Your task to perform on an android device: turn on javascript in the chrome app Image 0: 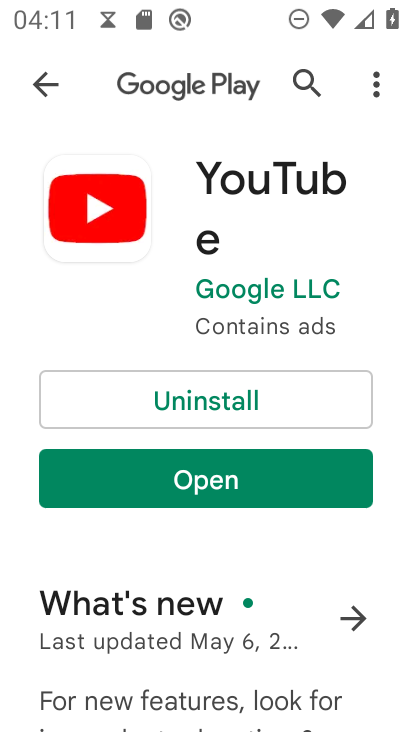
Step 0: press home button
Your task to perform on an android device: turn on javascript in the chrome app Image 1: 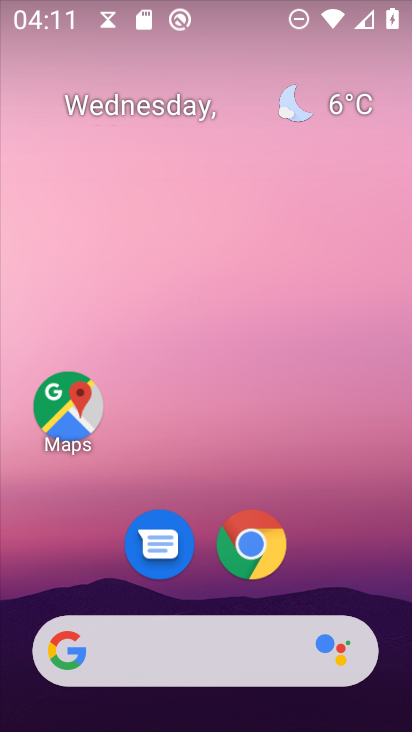
Step 1: click (253, 540)
Your task to perform on an android device: turn on javascript in the chrome app Image 2: 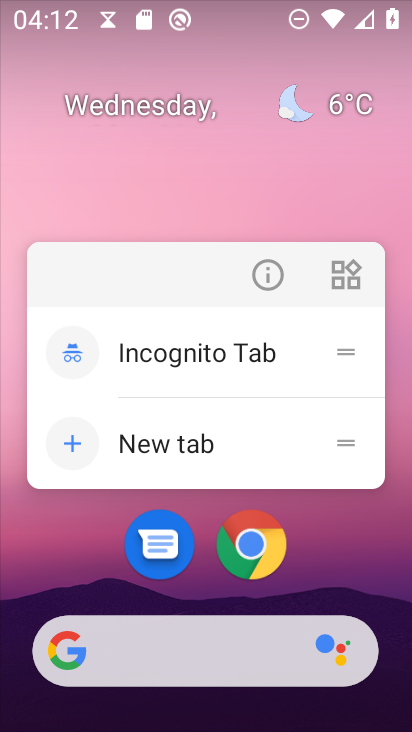
Step 2: click (257, 537)
Your task to perform on an android device: turn on javascript in the chrome app Image 3: 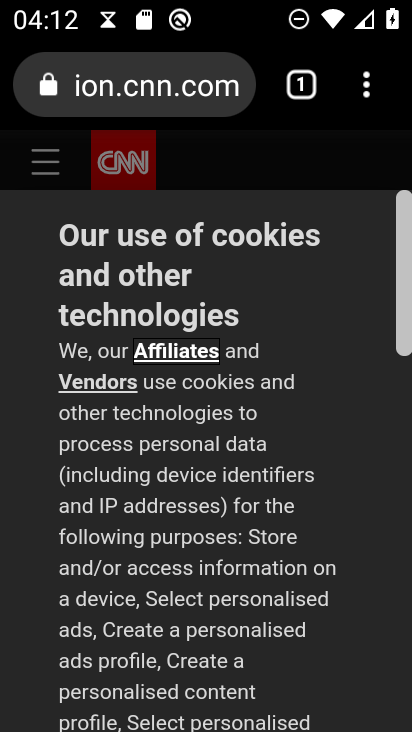
Step 3: click (372, 83)
Your task to perform on an android device: turn on javascript in the chrome app Image 4: 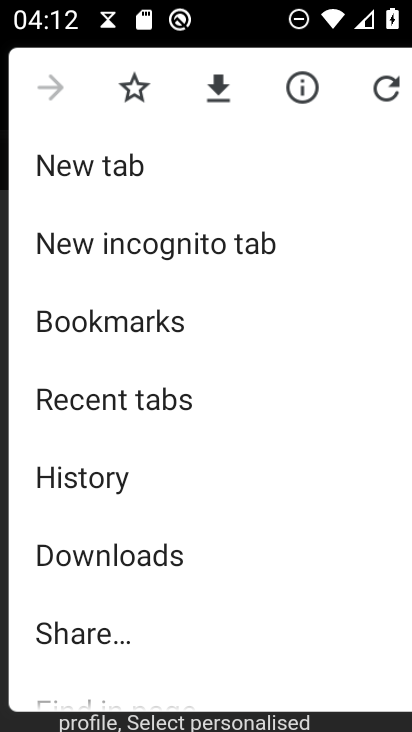
Step 4: drag from (192, 642) to (231, 202)
Your task to perform on an android device: turn on javascript in the chrome app Image 5: 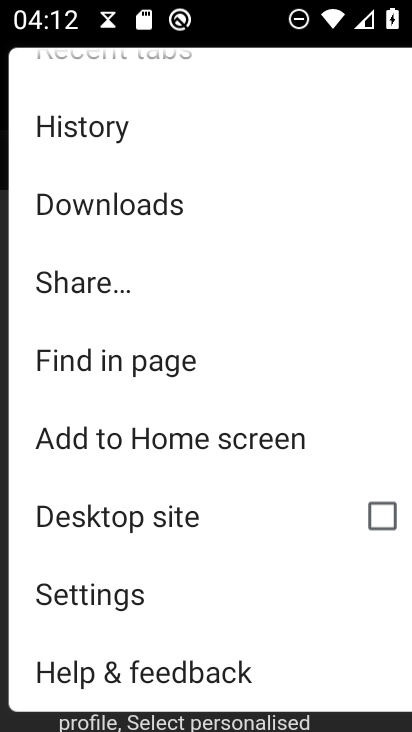
Step 5: click (135, 593)
Your task to perform on an android device: turn on javascript in the chrome app Image 6: 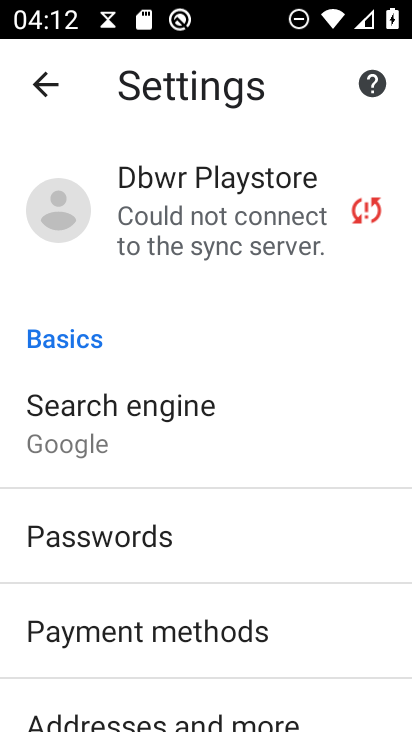
Step 6: drag from (196, 621) to (264, 213)
Your task to perform on an android device: turn on javascript in the chrome app Image 7: 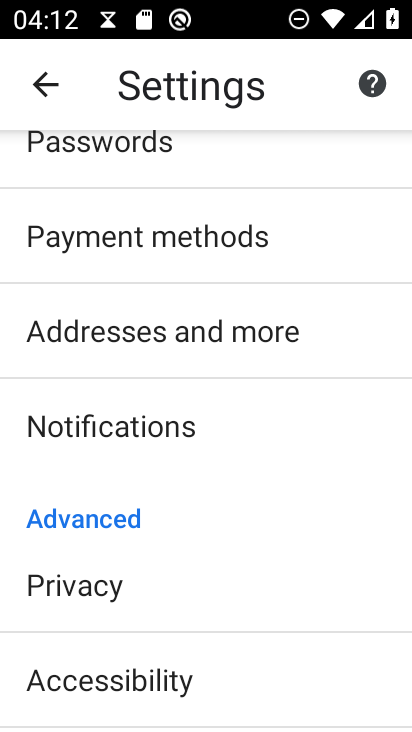
Step 7: drag from (199, 686) to (264, 360)
Your task to perform on an android device: turn on javascript in the chrome app Image 8: 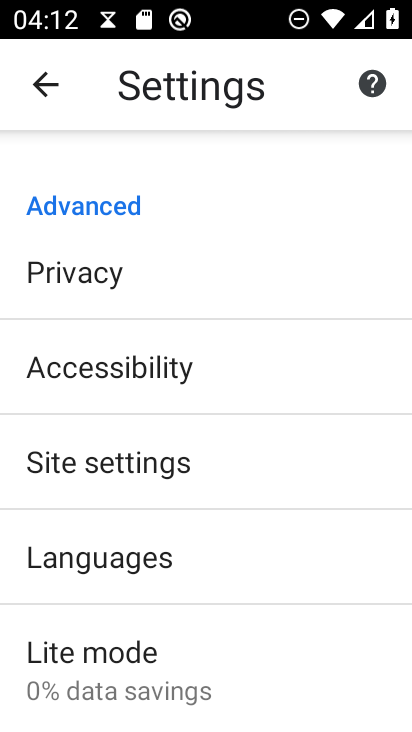
Step 8: drag from (176, 634) to (168, 286)
Your task to perform on an android device: turn on javascript in the chrome app Image 9: 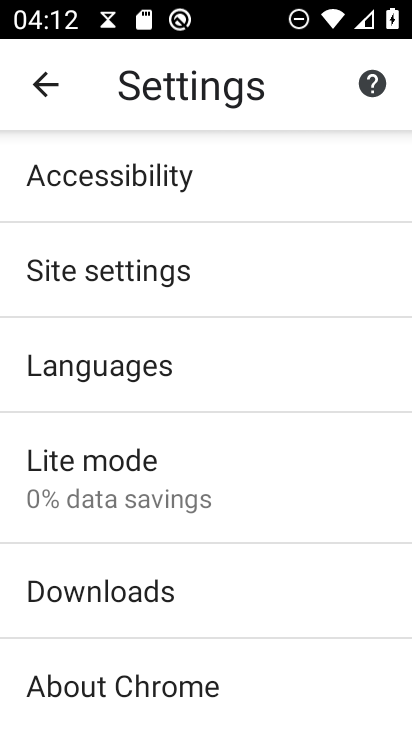
Step 9: drag from (178, 663) to (182, 401)
Your task to perform on an android device: turn on javascript in the chrome app Image 10: 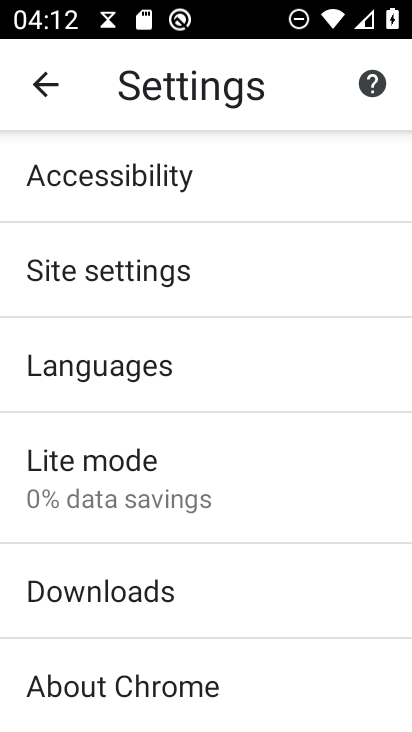
Step 10: click (123, 291)
Your task to perform on an android device: turn on javascript in the chrome app Image 11: 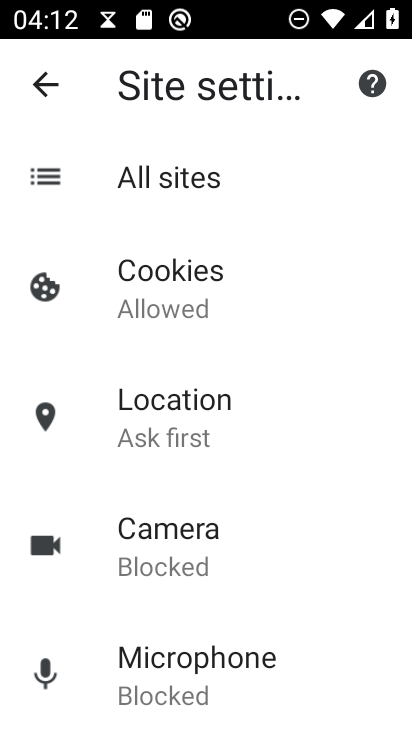
Step 11: drag from (191, 612) to (203, 318)
Your task to perform on an android device: turn on javascript in the chrome app Image 12: 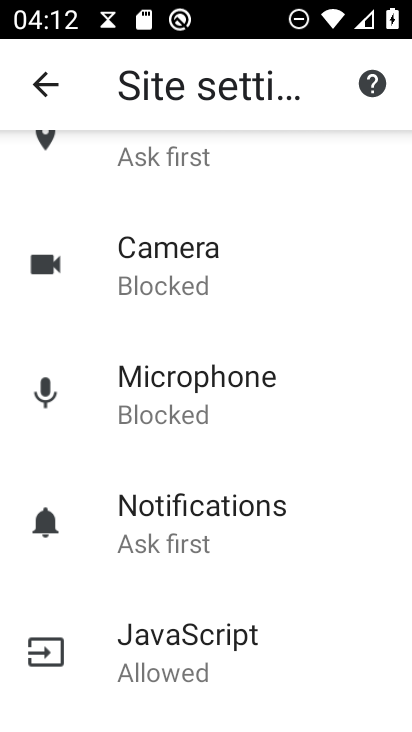
Step 12: click (199, 648)
Your task to perform on an android device: turn on javascript in the chrome app Image 13: 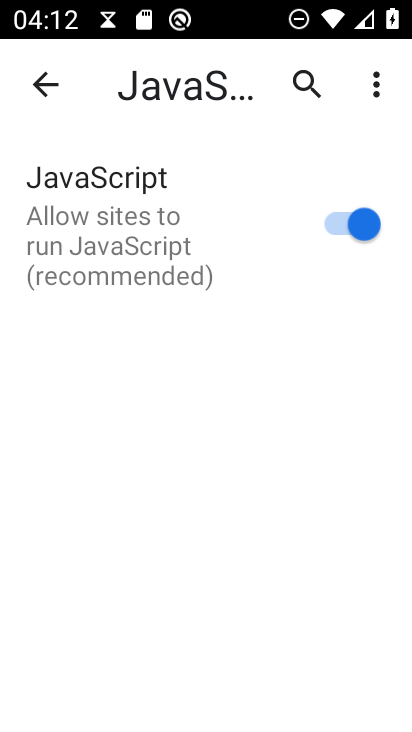
Step 13: task complete